Your task to perform on an android device: Open the stopwatch Image 0: 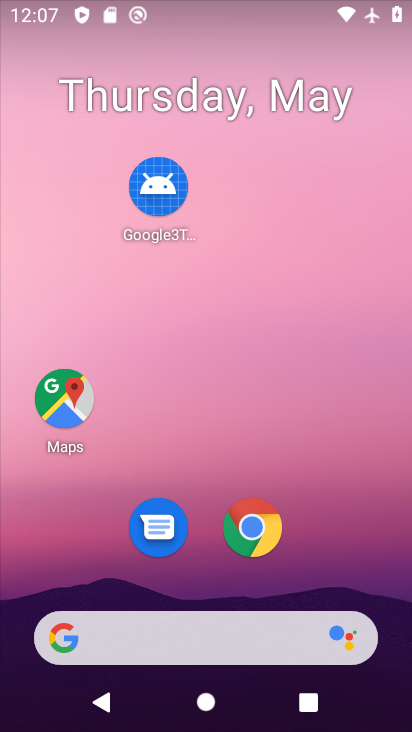
Step 0: drag from (205, 562) to (255, 25)
Your task to perform on an android device: Open the stopwatch Image 1: 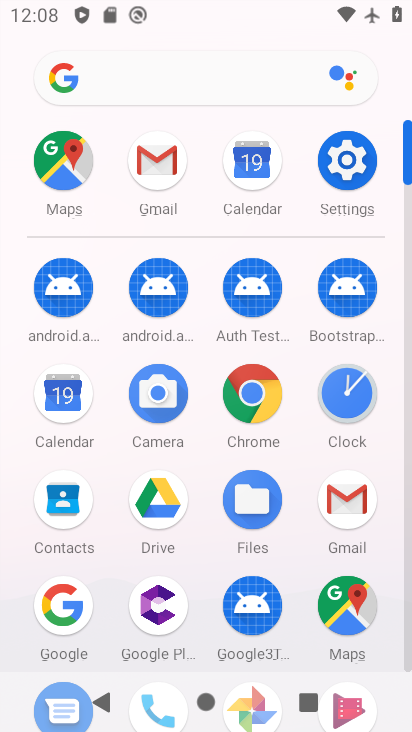
Step 1: click (341, 383)
Your task to perform on an android device: Open the stopwatch Image 2: 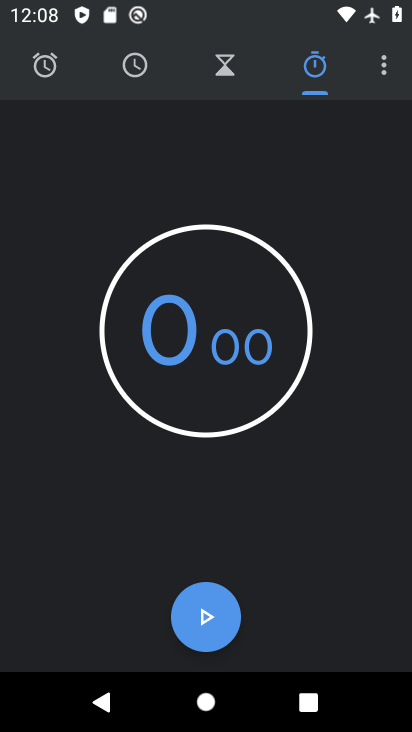
Step 2: click (224, 606)
Your task to perform on an android device: Open the stopwatch Image 3: 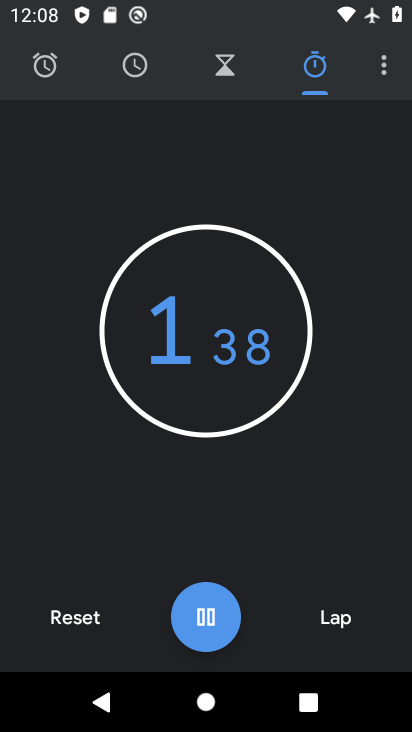
Step 3: task complete